Your task to perform on an android device: Go to accessibility settings Image 0: 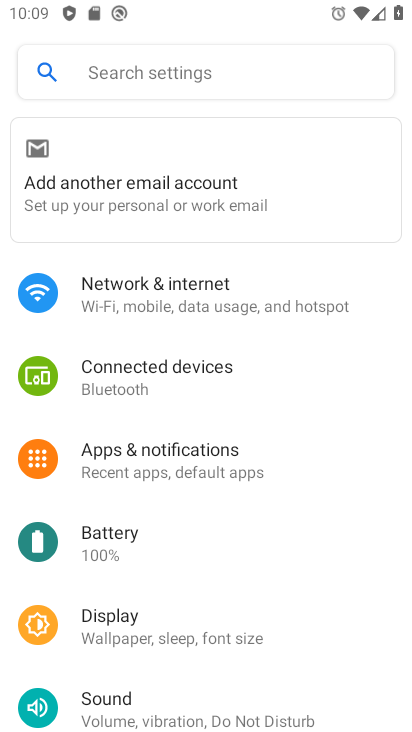
Step 0: drag from (229, 596) to (347, 222)
Your task to perform on an android device: Go to accessibility settings Image 1: 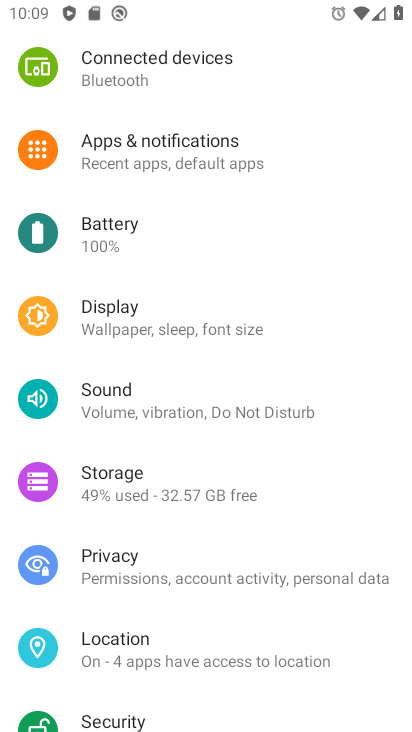
Step 1: drag from (257, 543) to (333, 139)
Your task to perform on an android device: Go to accessibility settings Image 2: 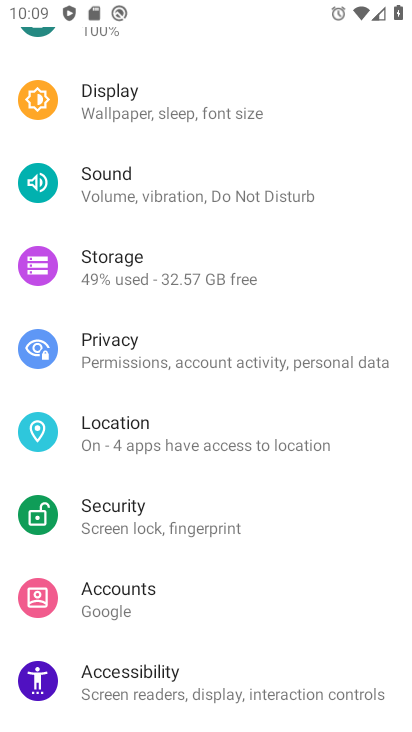
Step 2: click (134, 683)
Your task to perform on an android device: Go to accessibility settings Image 3: 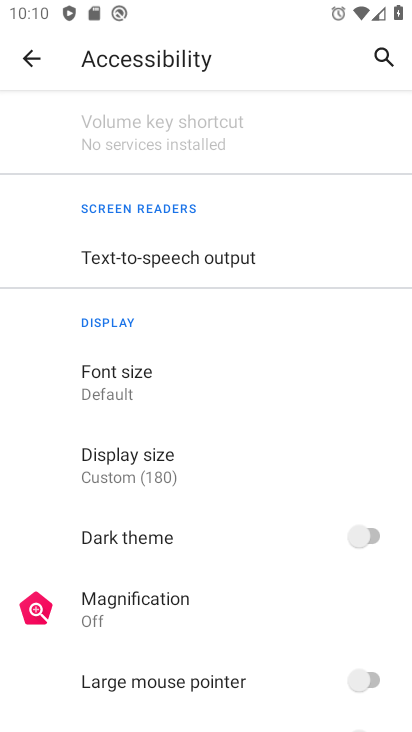
Step 3: task complete